Your task to perform on an android device: search for starred emails in the gmail app Image 0: 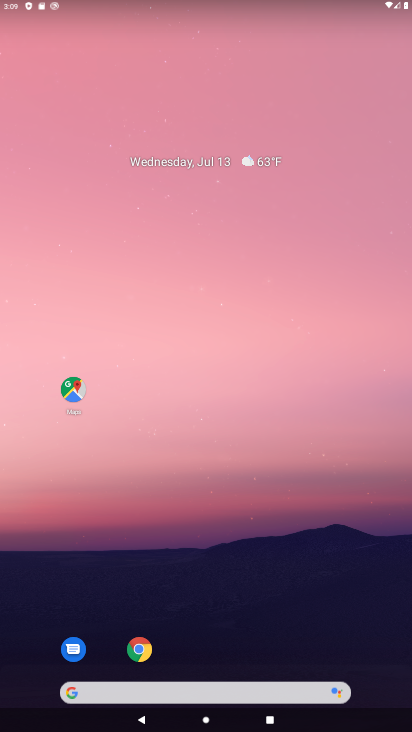
Step 0: drag from (246, 657) to (353, 3)
Your task to perform on an android device: search for starred emails in the gmail app Image 1: 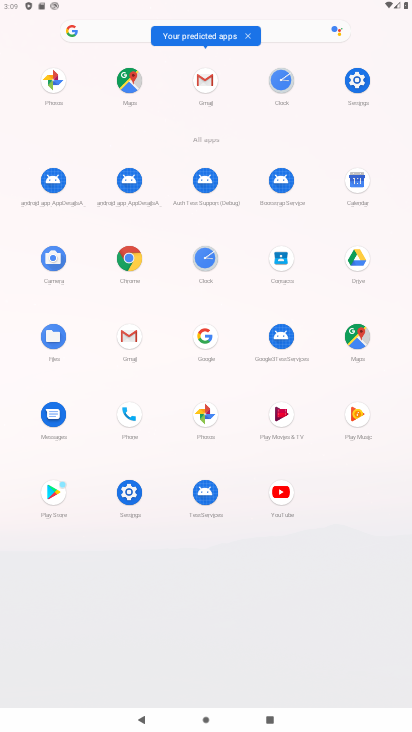
Step 1: click (210, 95)
Your task to perform on an android device: search for starred emails in the gmail app Image 2: 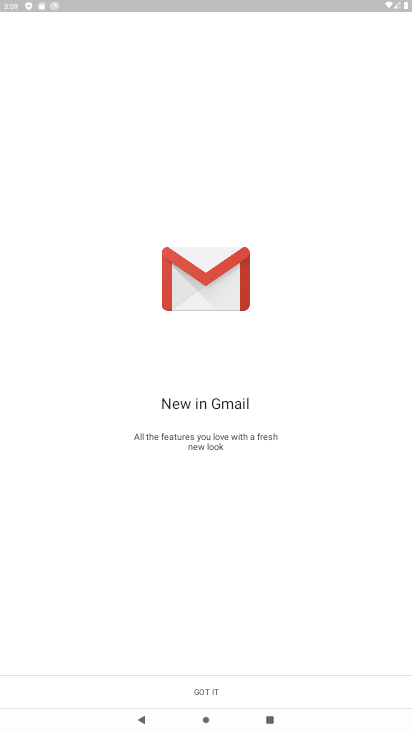
Step 2: click (216, 688)
Your task to perform on an android device: search for starred emails in the gmail app Image 3: 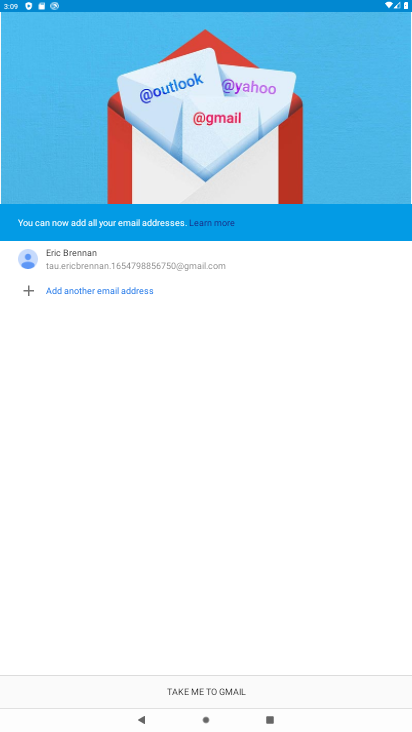
Step 3: click (216, 688)
Your task to perform on an android device: search for starred emails in the gmail app Image 4: 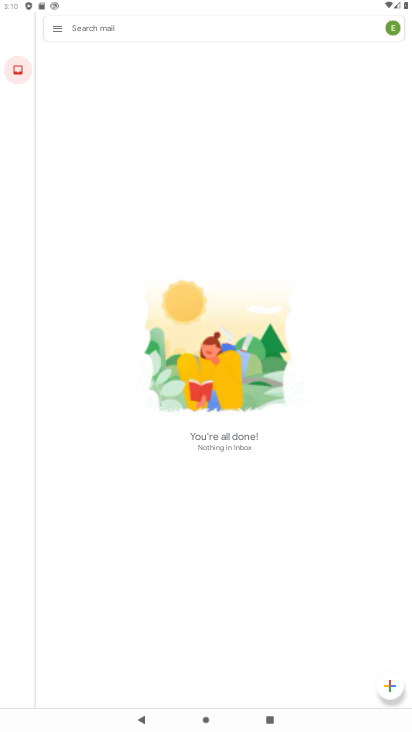
Step 4: click (58, 26)
Your task to perform on an android device: search for starred emails in the gmail app Image 5: 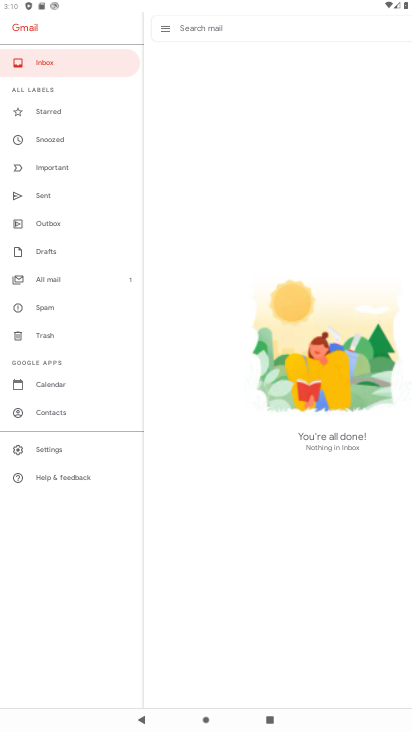
Step 5: click (32, 111)
Your task to perform on an android device: search for starred emails in the gmail app Image 6: 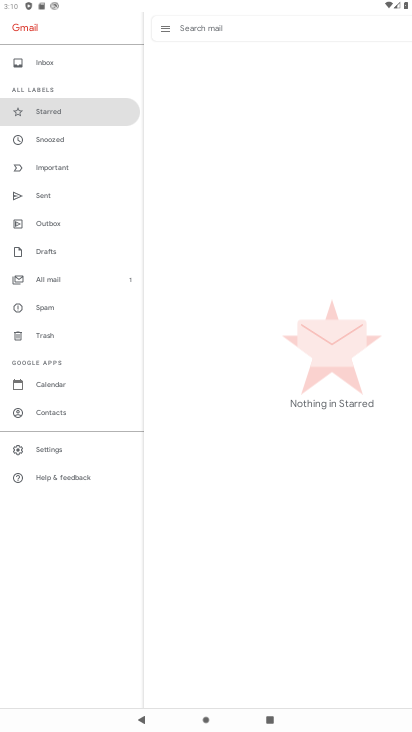
Step 6: task complete